Your task to perform on an android device: Play the last video I watched on Youtube Image 0: 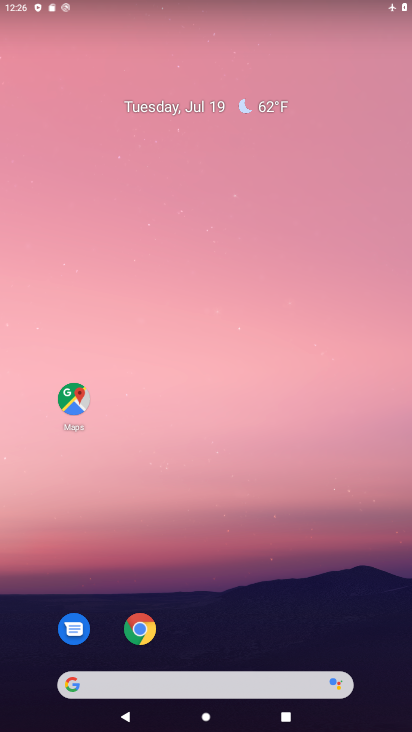
Step 0: drag from (194, 662) to (194, 43)
Your task to perform on an android device: Play the last video I watched on Youtube Image 1: 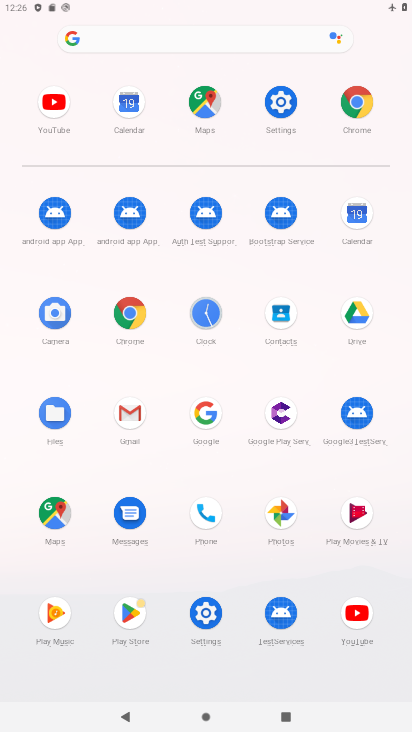
Step 1: click (351, 607)
Your task to perform on an android device: Play the last video I watched on Youtube Image 2: 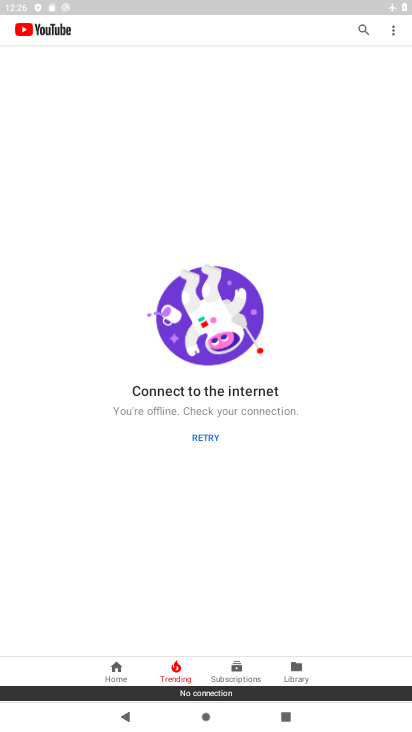
Step 2: click (295, 672)
Your task to perform on an android device: Play the last video I watched on Youtube Image 3: 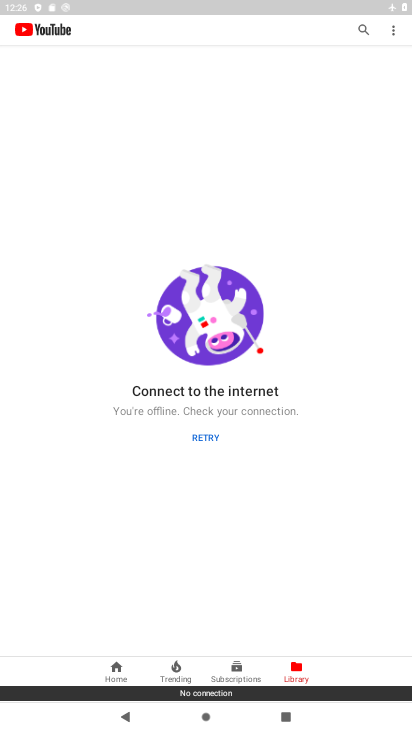
Step 3: task complete